Your task to perform on an android device: How much does a 2 bedroom apartment rent for in Washington DC? Image 0: 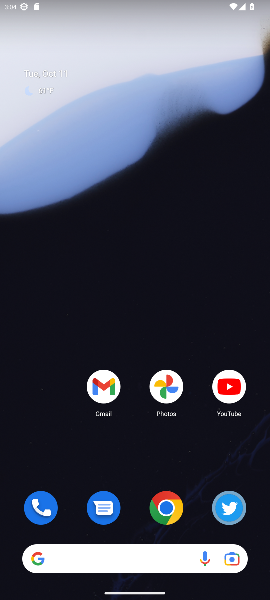
Step 0: click (167, 509)
Your task to perform on an android device: How much does a 2 bedroom apartment rent for in Washington DC? Image 1: 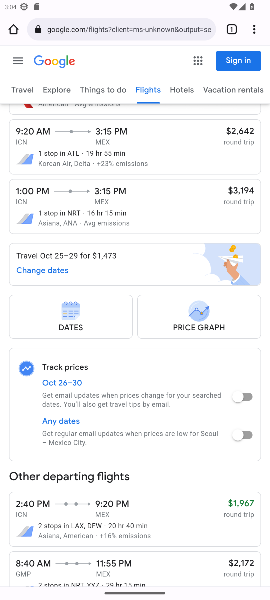
Step 1: click (165, 32)
Your task to perform on an android device: How much does a 2 bedroom apartment rent for in Washington DC? Image 2: 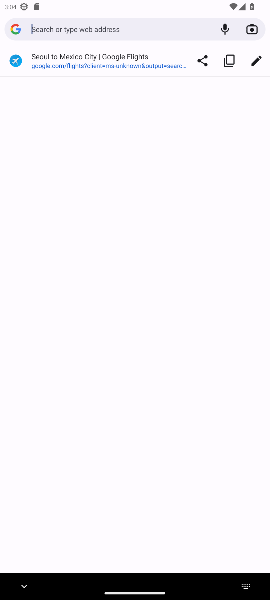
Step 2: type "2 bedroom apartment rent for in Washington DC"
Your task to perform on an android device: How much does a 2 bedroom apartment rent for in Washington DC? Image 3: 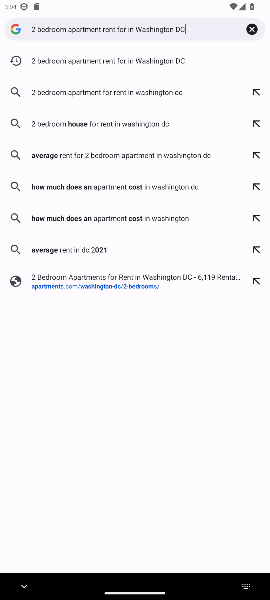
Step 3: press enter
Your task to perform on an android device: How much does a 2 bedroom apartment rent for in Washington DC? Image 4: 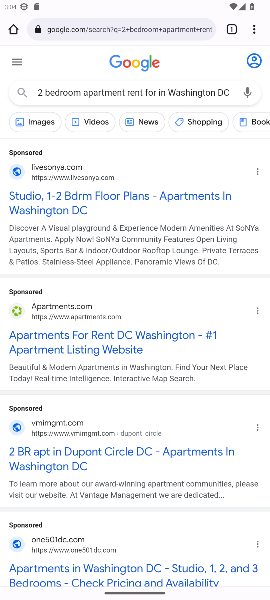
Step 4: drag from (154, 400) to (100, 193)
Your task to perform on an android device: How much does a 2 bedroom apartment rent for in Washington DC? Image 5: 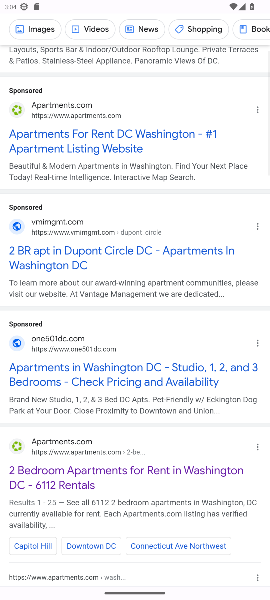
Step 5: click (52, 483)
Your task to perform on an android device: How much does a 2 bedroom apartment rent for in Washington DC? Image 6: 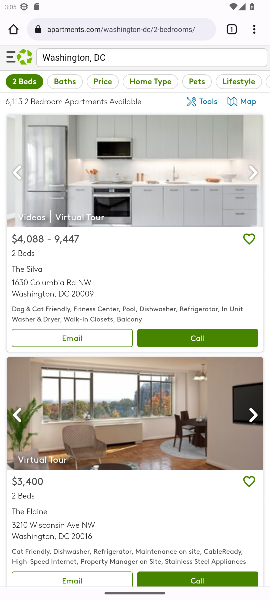
Step 6: task complete